Your task to perform on an android device: Open ESPN.com Image 0: 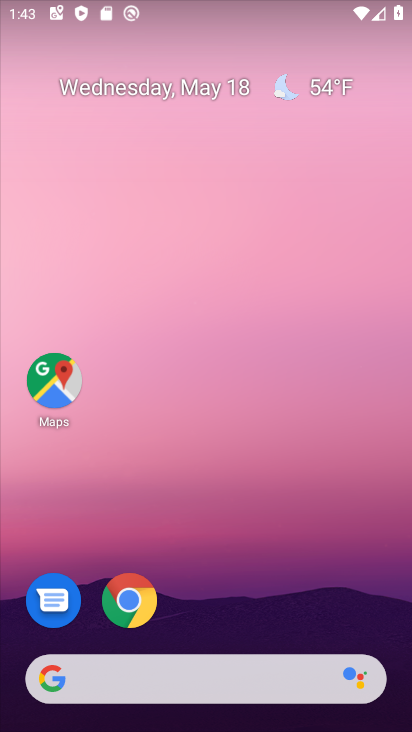
Step 0: drag from (296, 5) to (306, 550)
Your task to perform on an android device: Open ESPN.com Image 1: 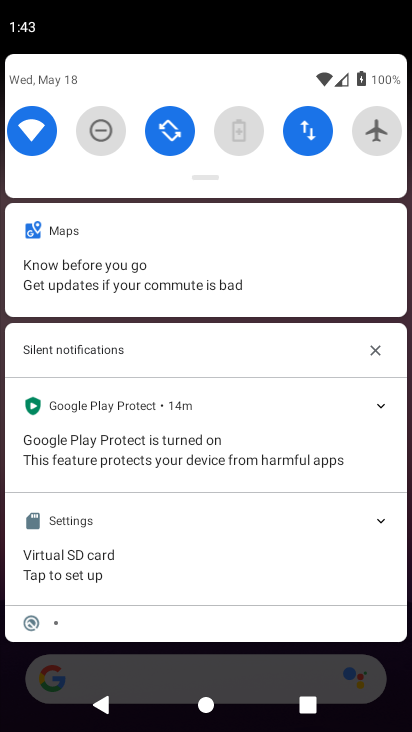
Step 1: press home button
Your task to perform on an android device: Open ESPN.com Image 2: 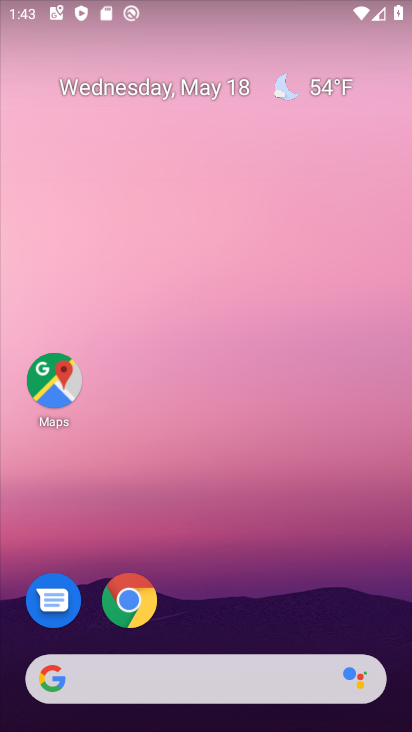
Step 2: click (166, 701)
Your task to perform on an android device: Open ESPN.com Image 3: 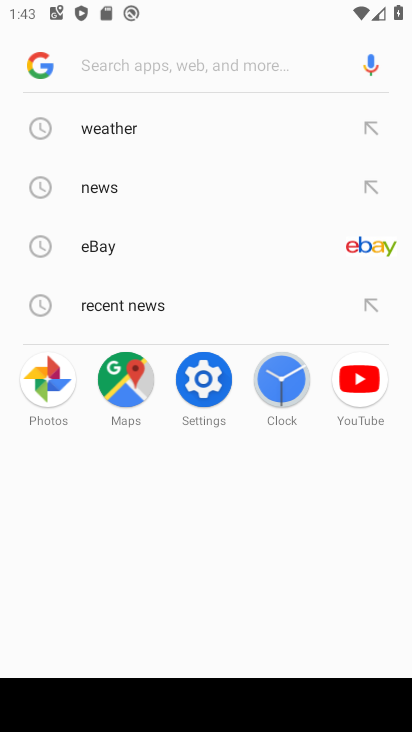
Step 3: type "espn"
Your task to perform on an android device: Open ESPN.com Image 4: 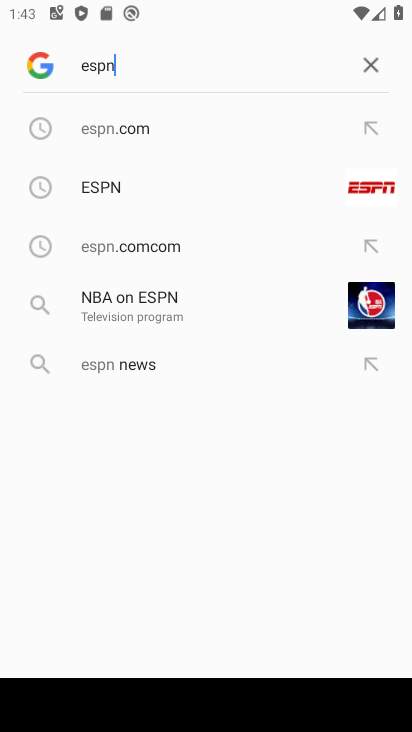
Step 4: click (79, 194)
Your task to perform on an android device: Open ESPN.com Image 5: 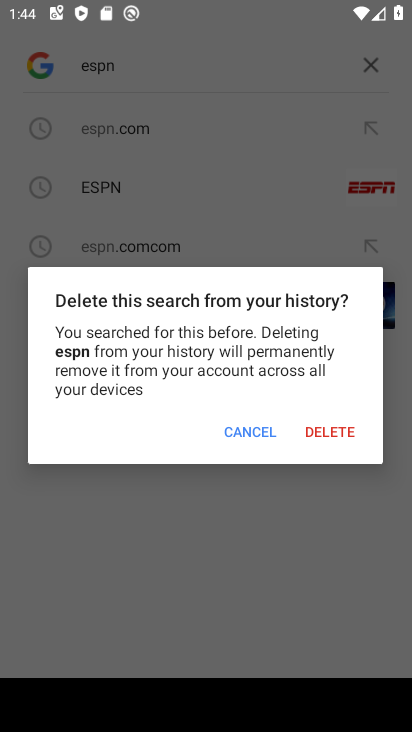
Step 5: click (280, 436)
Your task to perform on an android device: Open ESPN.com Image 6: 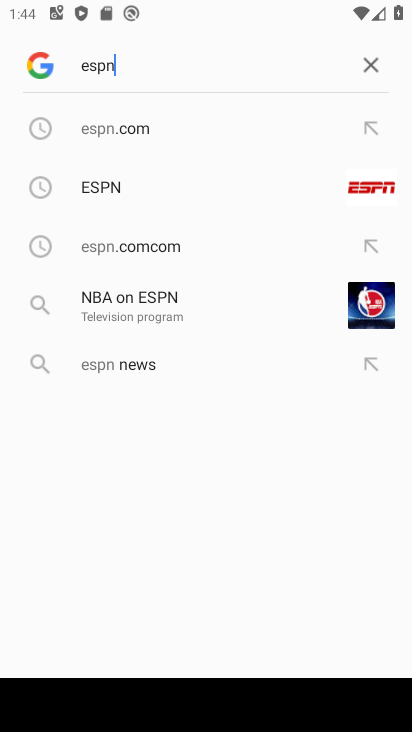
Step 6: click (131, 173)
Your task to perform on an android device: Open ESPN.com Image 7: 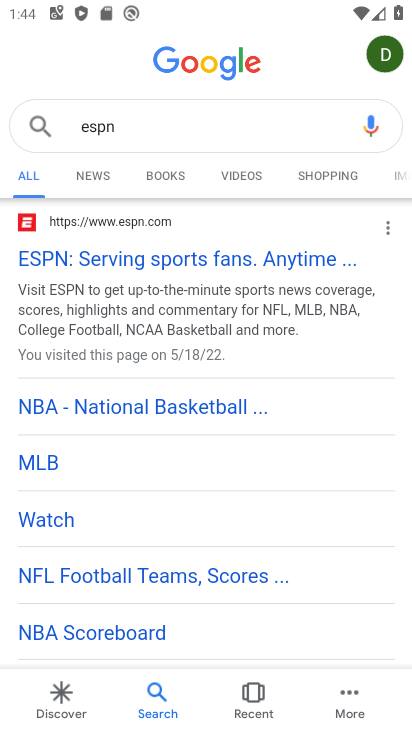
Step 7: click (79, 274)
Your task to perform on an android device: Open ESPN.com Image 8: 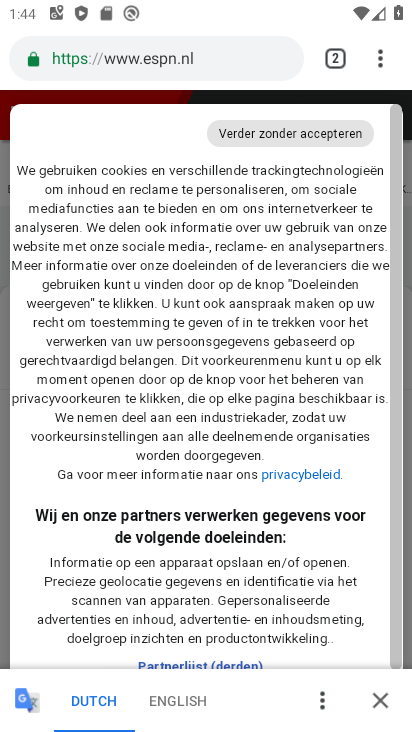
Step 8: task complete